Your task to perform on an android device: open wifi settings Image 0: 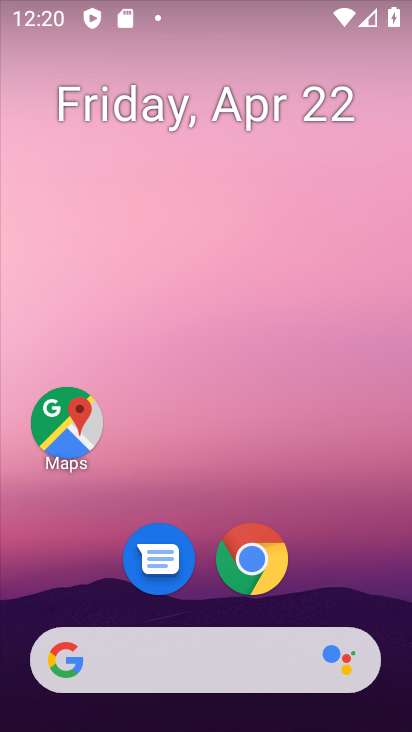
Step 0: drag from (363, 558) to (353, 178)
Your task to perform on an android device: open wifi settings Image 1: 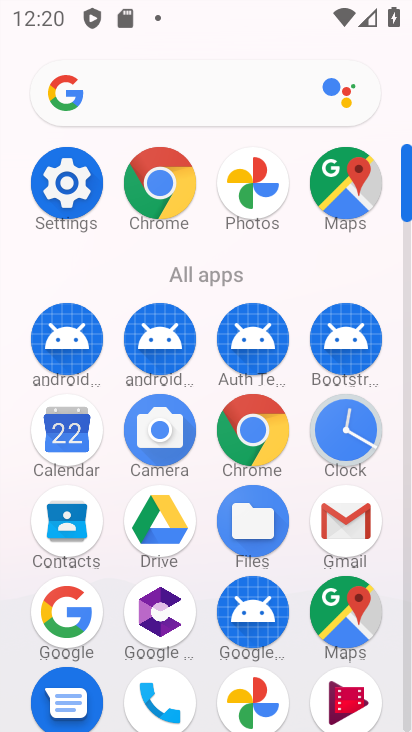
Step 1: click (51, 204)
Your task to perform on an android device: open wifi settings Image 2: 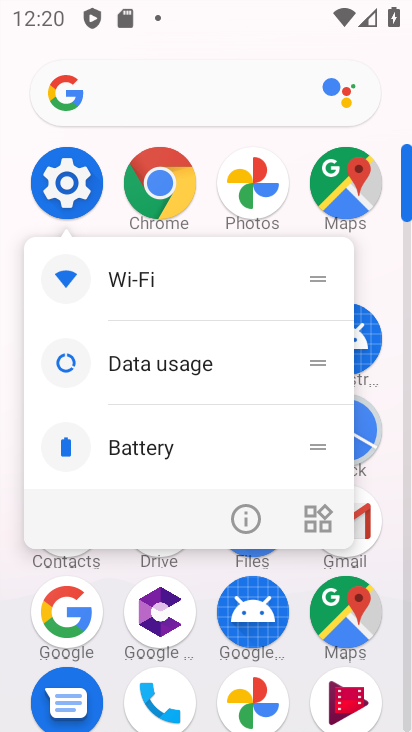
Step 2: click (53, 205)
Your task to perform on an android device: open wifi settings Image 3: 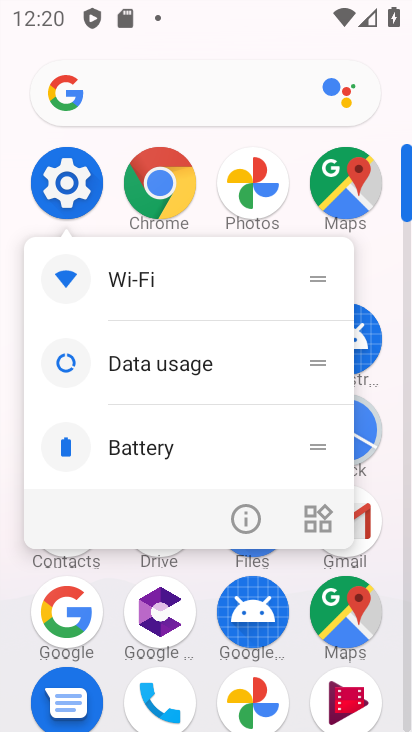
Step 3: click (54, 207)
Your task to perform on an android device: open wifi settings Image 4: 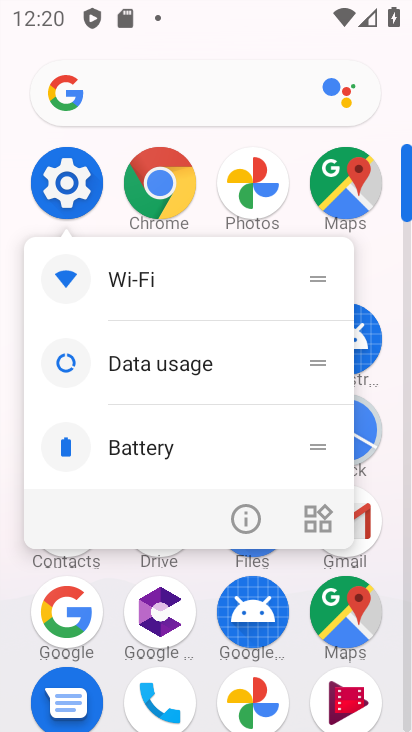
Step 4: click (107, 283)
Your task to perform on an android device: open wifi settings Image 5: 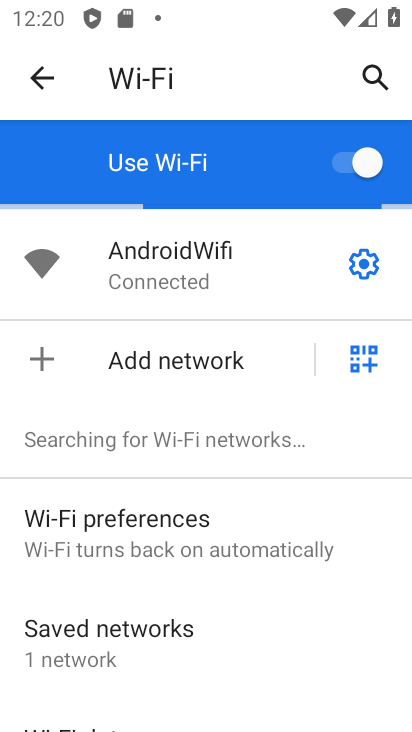
Step 5: task complete